Your task to perform on an android device: Open location settings Image 0: 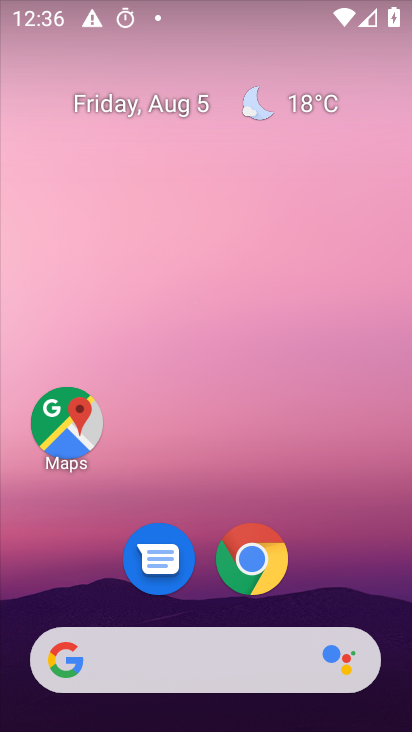
Step 0: drag from (24, 689) to (231, 186)
Your task to perform on an android device: Open location settings Image 1: 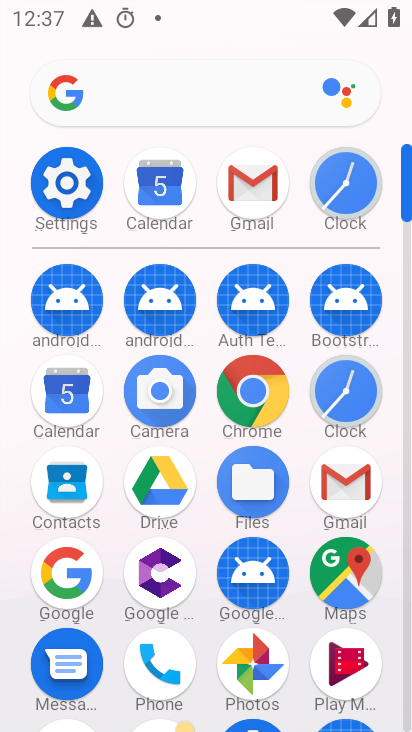
Step 1: click (405, 656)
Your task to perform on an android device: Open location settings Image 2: 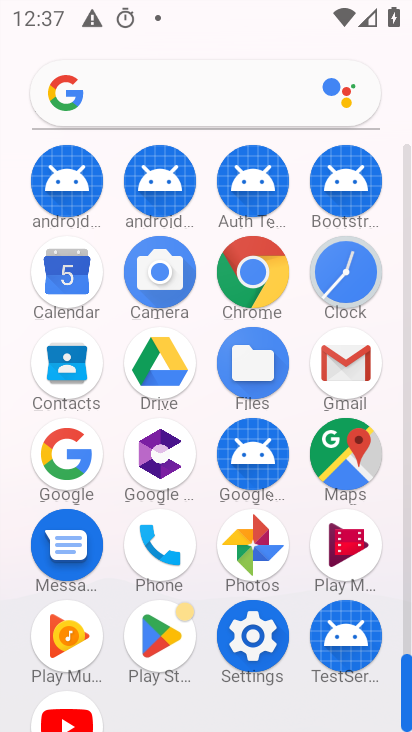
Step 2: click (251, 637)
Your task to perform on an android device: Open location settings Image 3: 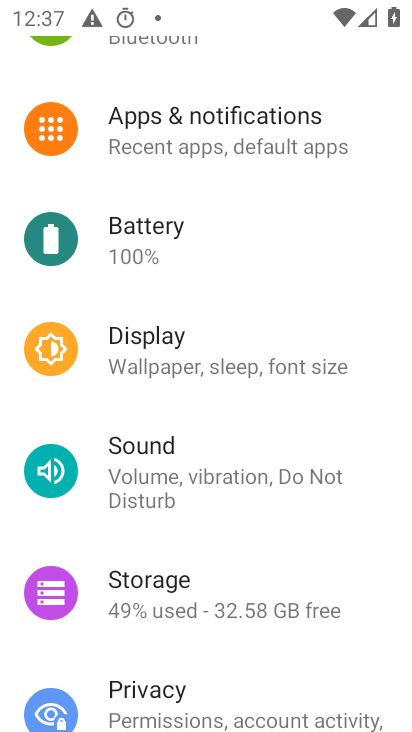
Step 3: drag from (101, 644) to (128, 336)
Your task to perform on an android device: Open location settings Image 4: 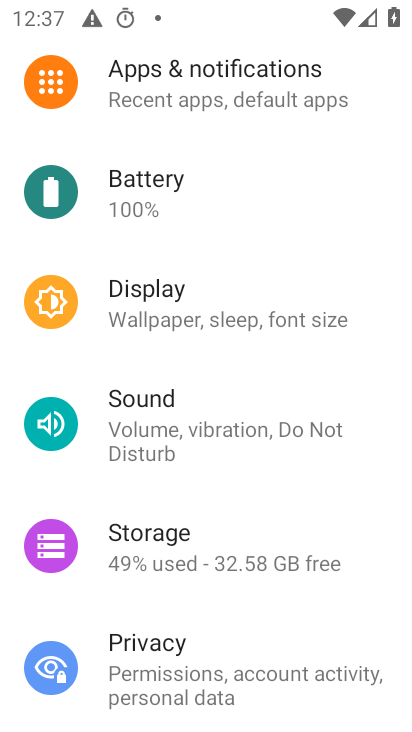
Step 4: drag from (188, 503) to (233, 54)
Your task to perform on an android device: Open location settings Image 5: 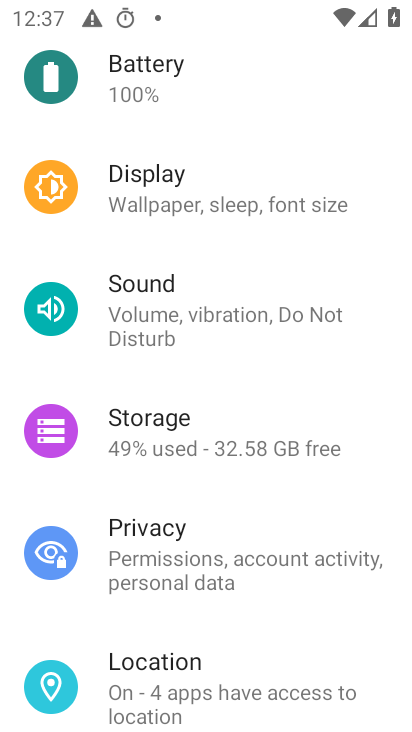
Step 5: click (178, 667)
Your task to perform on an android device: Open location settings Image 6: 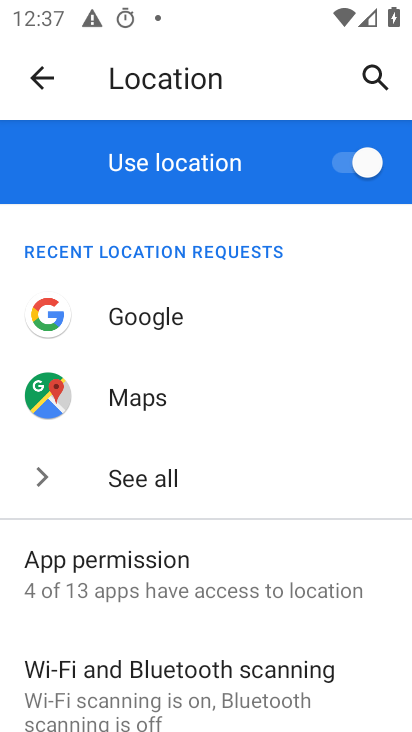
Step 6: task complete